Your task to perform on an android device: check android version Image 0: 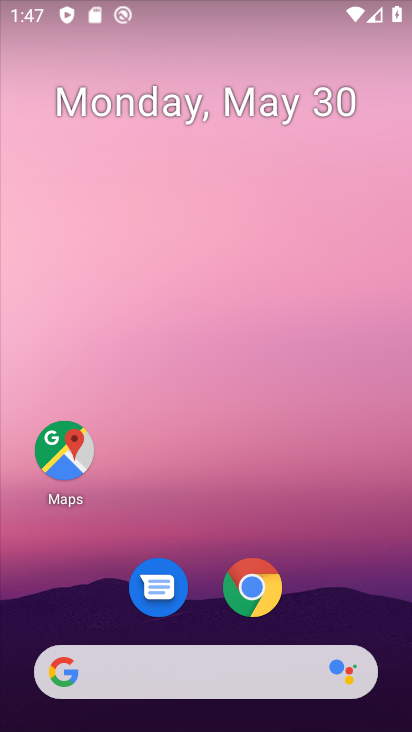
Step 0: drag from (120, 729) to (224, 18)
Your task to perform on an android device: check android version Image 1: 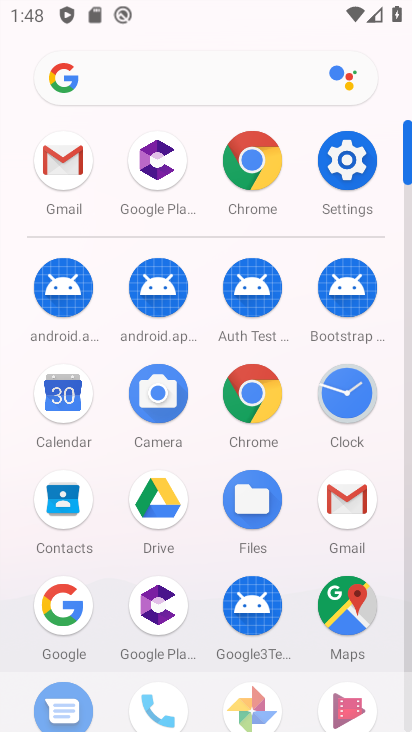
Step 1: click (324, 163)
Your task to perform on an android device: check android version Image 2: 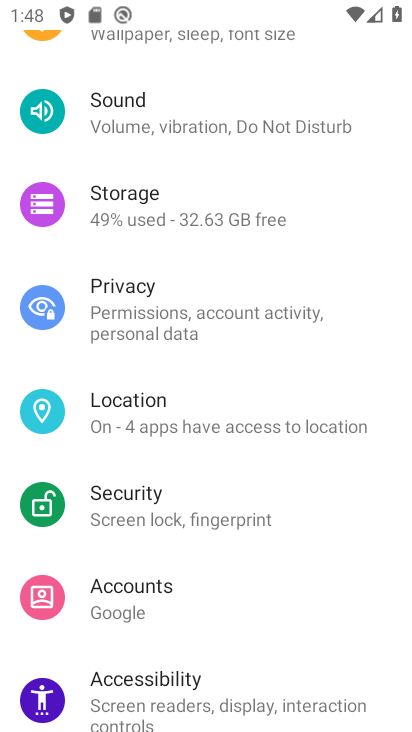
Step 2: drag from (284, 661) to (212, 161)
Your task to perform on an android device: check android version Image 3: 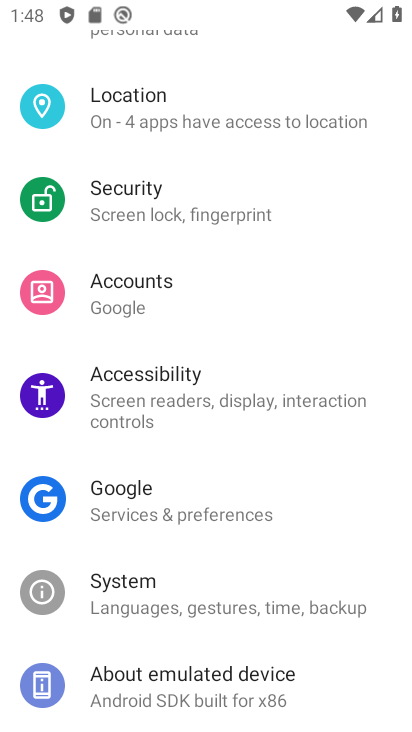
Step 3: click (157, 689)
Your task to perform on an android device: check android version Image 4: 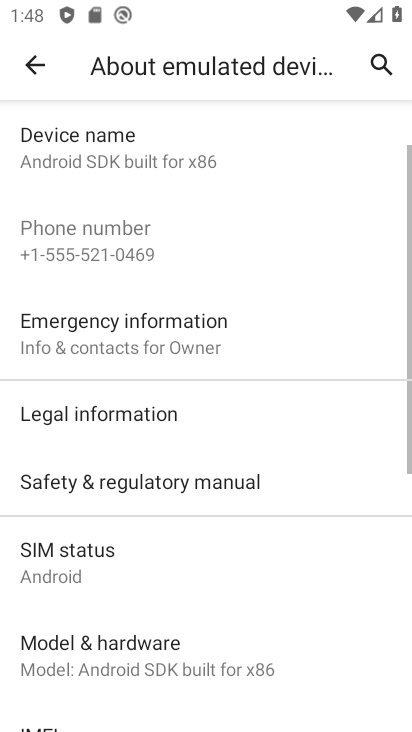
Step 4: drag from (288, 677) to (277, 167)
Your task to perform on an android device: check android version Image 5: 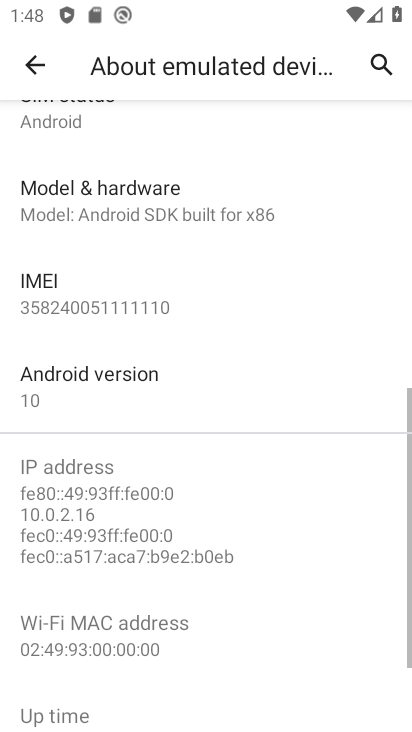
Step 5: click (130, 394)
Your task to perform on an android device: check android version Image 6: 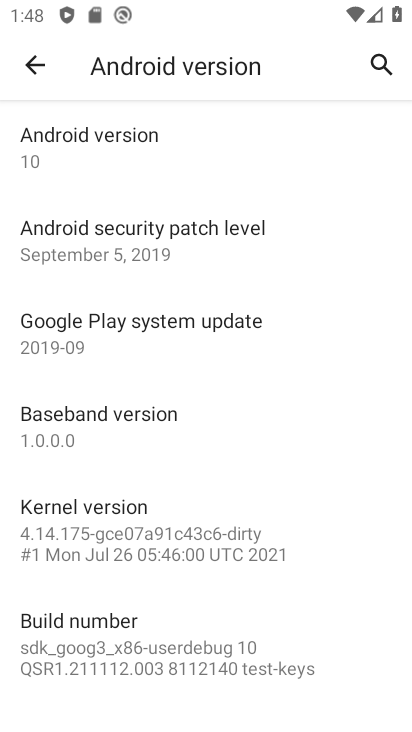
Step 6: task complete